Your task to perform on an android device: stop showing notifications on the lock screen Image 0: 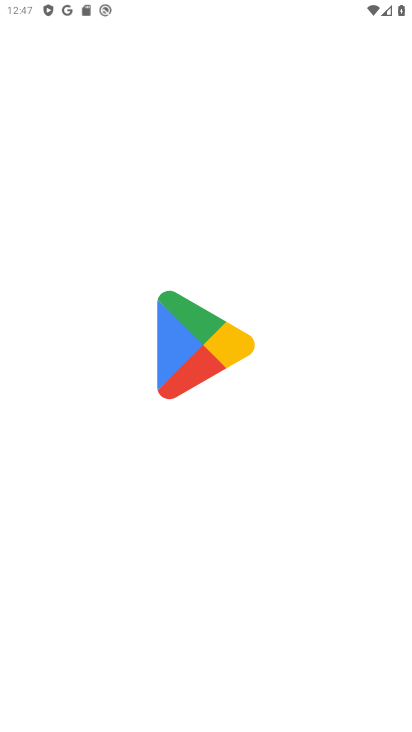
Step 0: drag from (199, 634) to (261, 0)
Your task to perform on an android device: stop showing notifications on the lock screen Image 1: 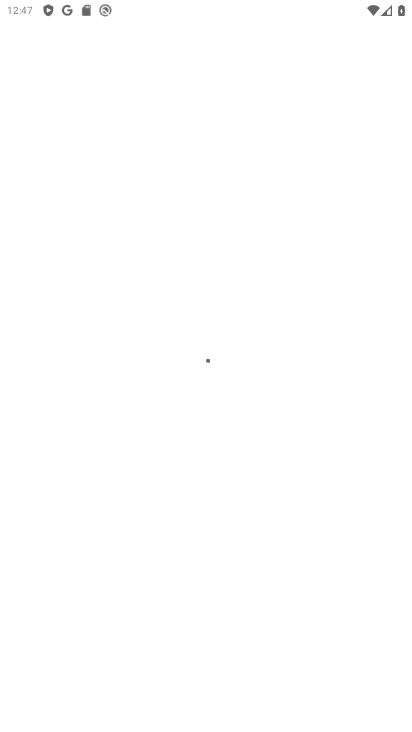
Step 1: press home button
Your task to perform on an android device: stop showing notifications on the lock screen Image 2: 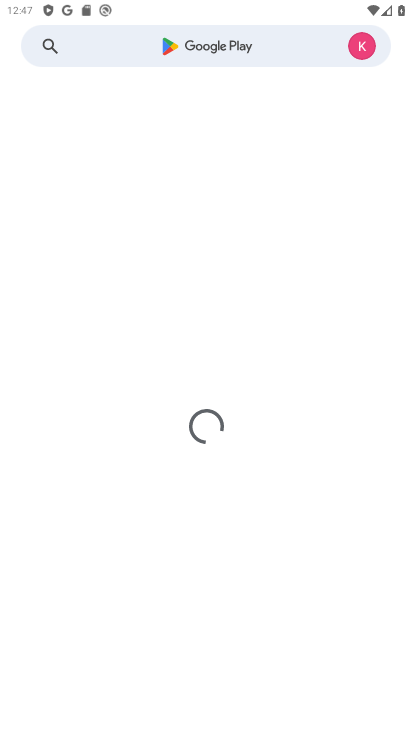
Step 2: drag from (261, 0) to (366, 640)
Your task to perform on an android device: stop showing notifications on the lock screen Image 3: 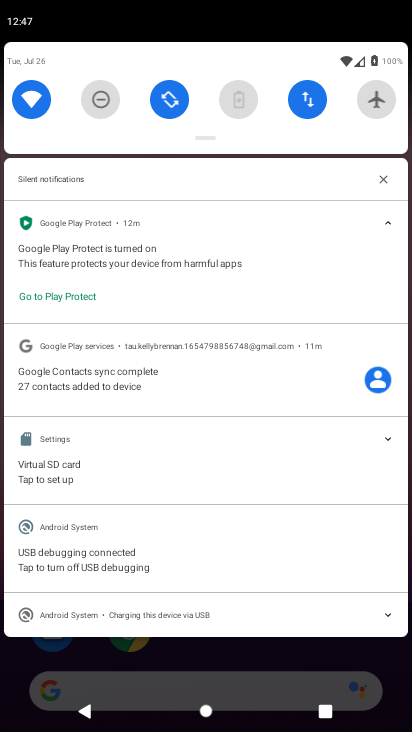
Step 3: press home button
Your task to perform on an android device: stop showing notifications on the lock screen Image 4: 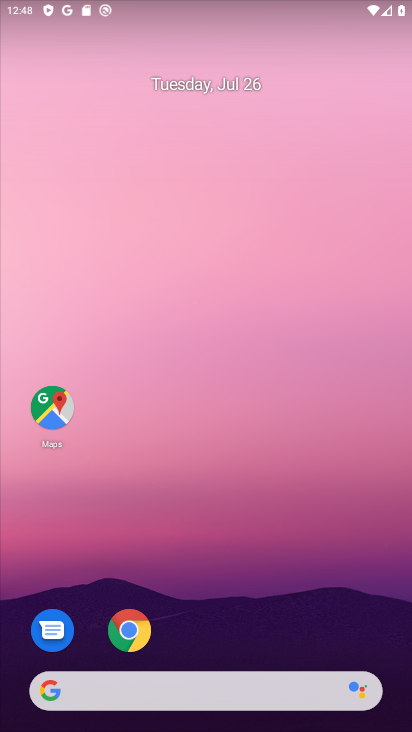
Step 4: drag from (188, 55) to (170, 259)
Your task to perform on an android device: stop showing notifications on the lock screen Image 5: 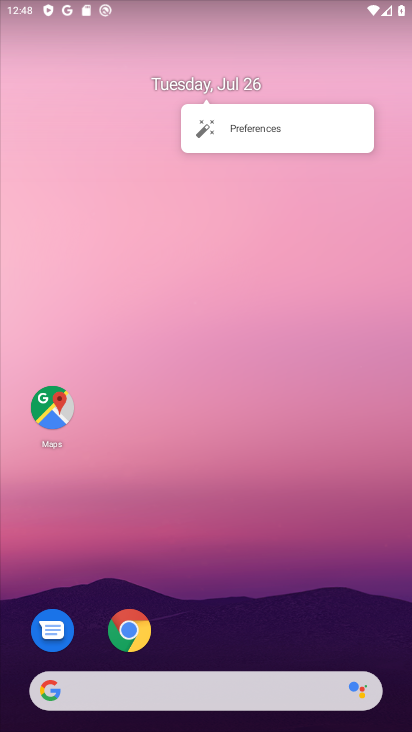
Step 5: click (203, 637)
Your task to perform on an android device: stop showing notifications on the lock screen Image 6: 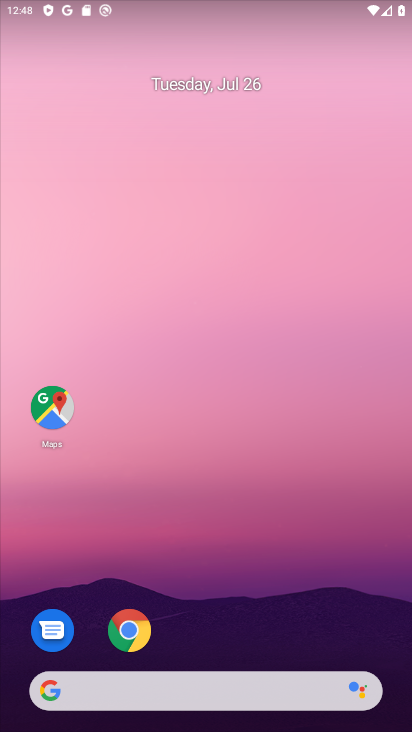
Step 6: drag from (203, 466) to (248, 2)
Your task to perform on an android device: stop showing notifications on the lock screen Image 7: 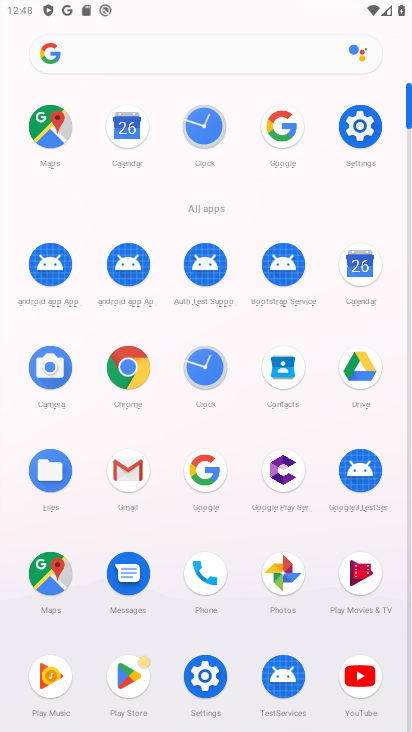
Step 7: click (202, 678)
Your task to perform on an android device: stop showing notifications on the lock screen Image 8: 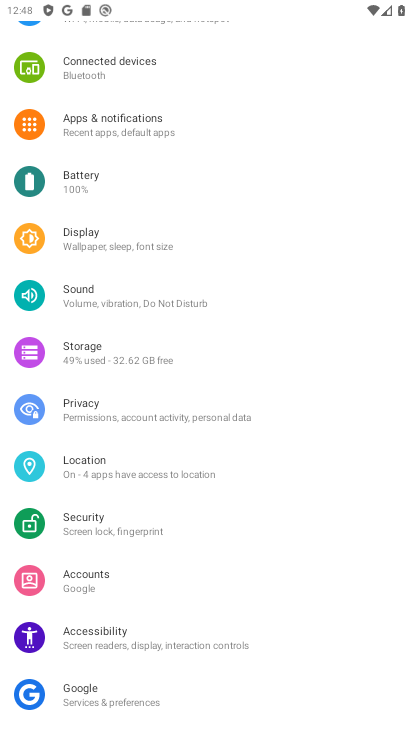
Step 8: click (74, 140)
Your task to perform on an android device: stop showing notifications on the lock screen Image 9: 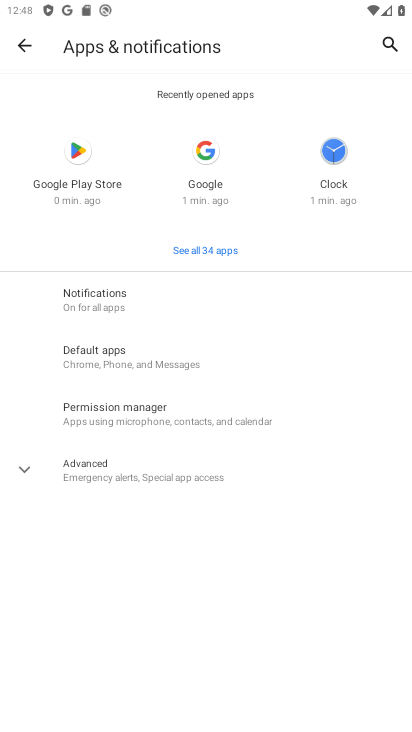
Step 9: click (87, 468)
Your task to perform on an android device: stop showing notifications on the lock screen Image 10: 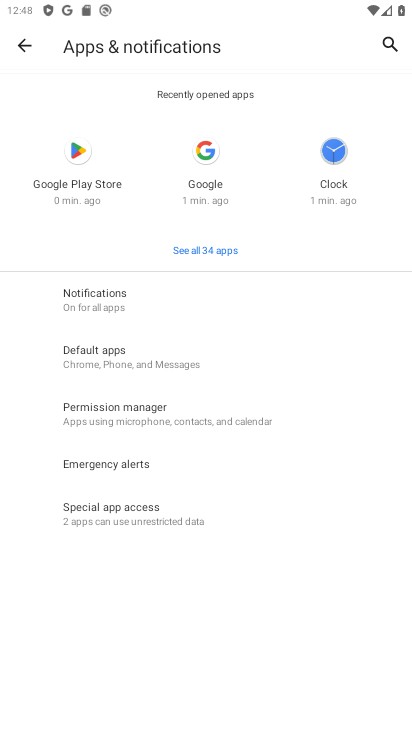
Step 10: click (92, 304)
Your task to perform on an android device: stop showing notifications on the lock screen Image 11: 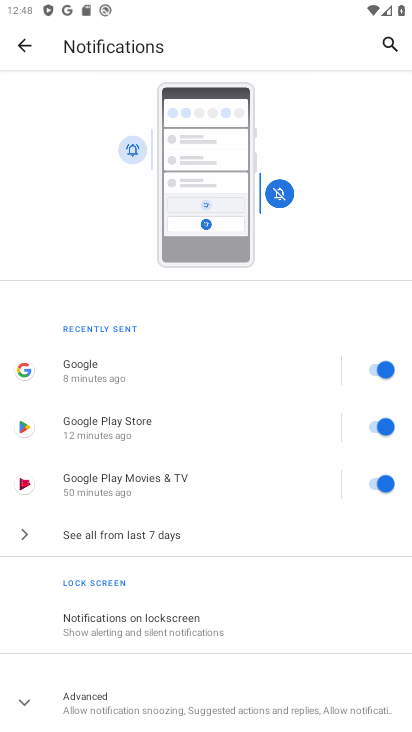
Step 11: click (89, 614)
Your task to perform on an android device: stop showing notifications on the lock screen Image 12: 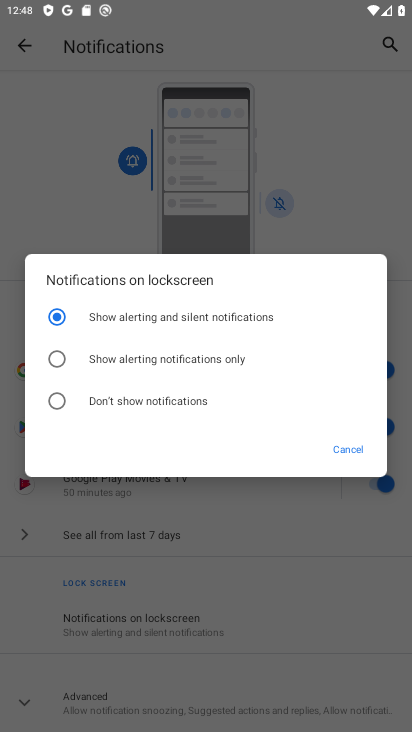
Step 12: click (51, 410)
Your task to perform on an android device: stop showing notifications on the lock screen Image 13: 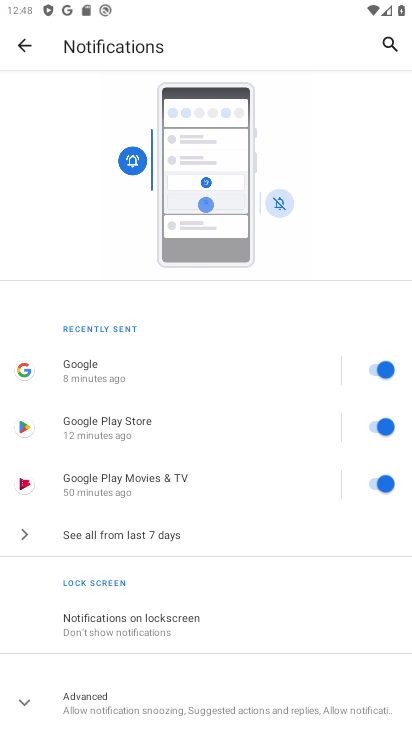
Step 13: task complete